Your task to perform on an android device: Clear the cart on costco.com. Add "jbl charge 4" to the cart on costco.com Image 0: 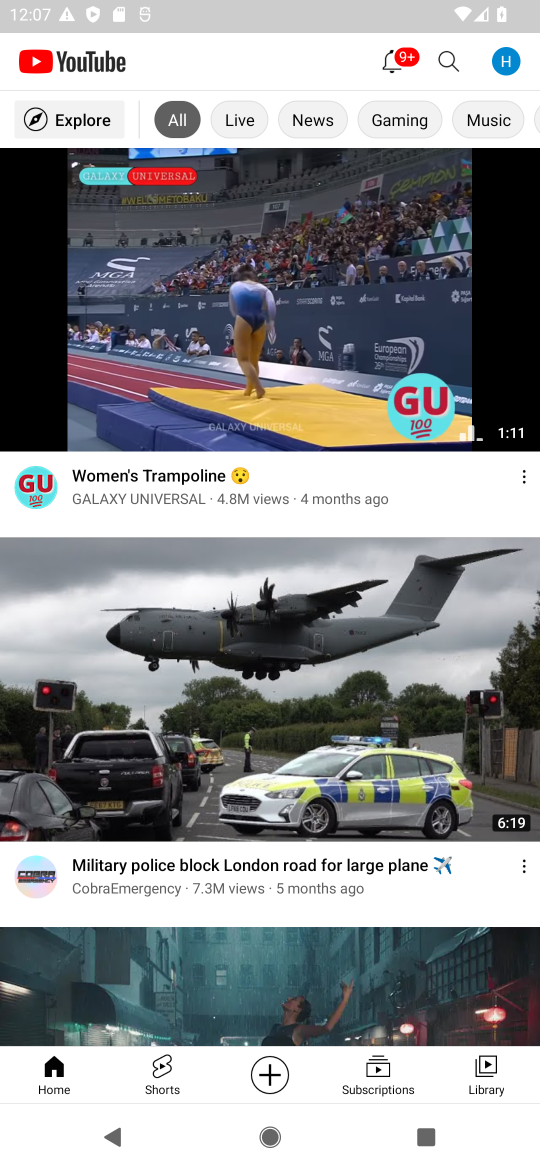
Step 0: task complete